Your task to perform on an android device: turn vacation reply on in the gmail app Image 0: 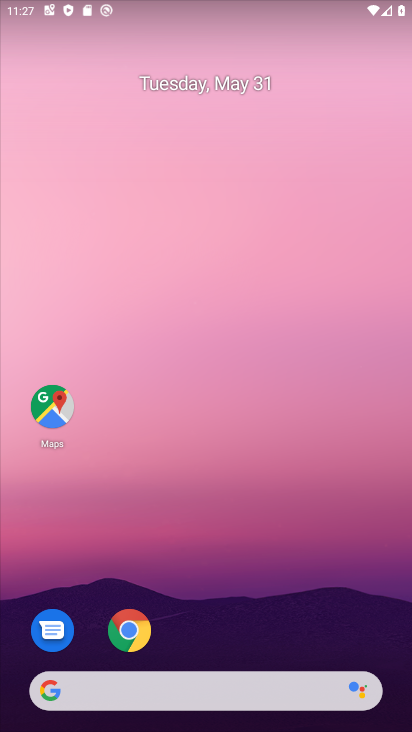
Step 0: drag from (123, 724) to (163, 198)
Your task to perform on an android device: turn vacation reply on in the gmail app Image 1: 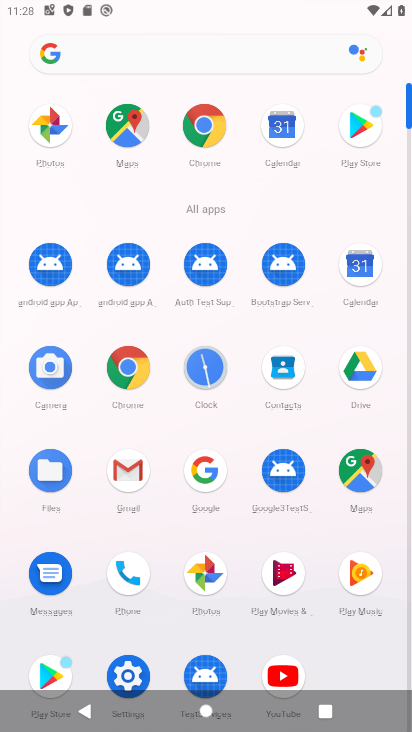
Step 1: click (123, 479)
Your task to perform on an android device: turn vacation reply on in the gmail app Image 2: 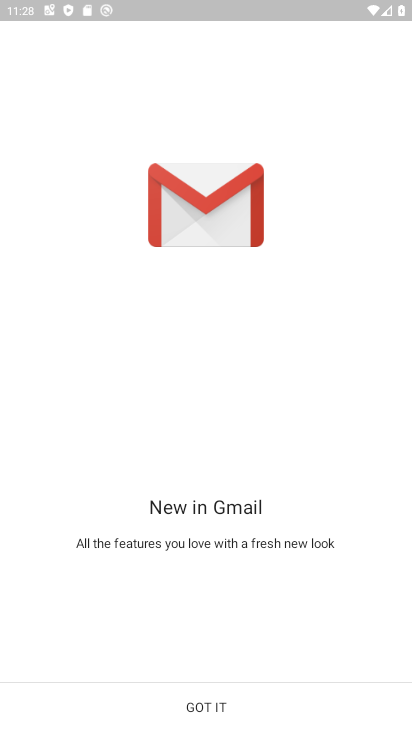
Step 2: click (201, 712)
Your task to perform on an android device: turn vacation reply on in the gmail app Image 3: 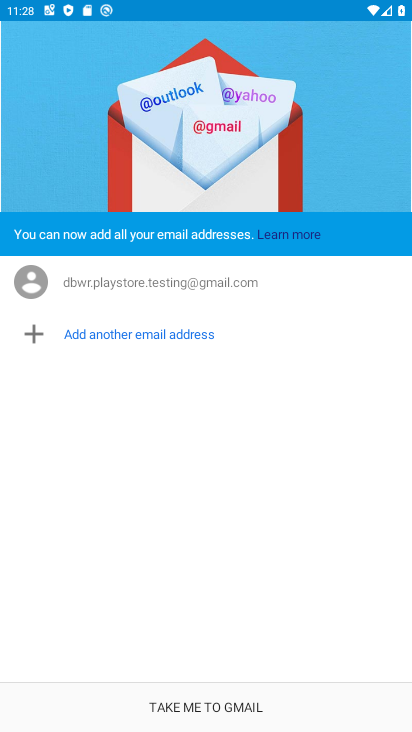
Step 3: click (201, 712)
Your task to perform on an android device: turn vacation reply on in the gmail app Image 4: 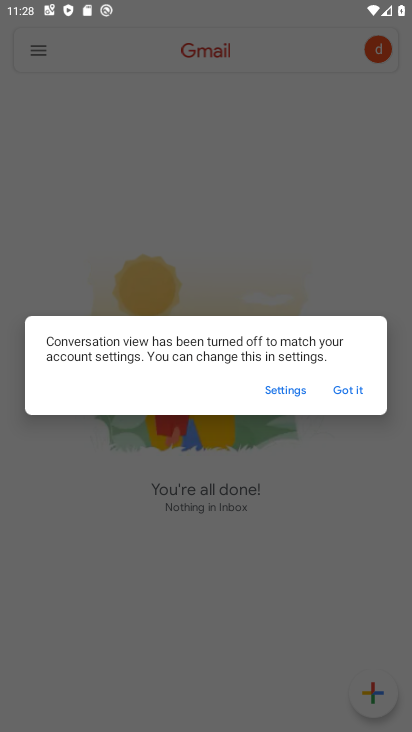
Step 4: click (346, 391)
Your task to perform on an android device: turn vacation reply on in the gmail app Image 5: 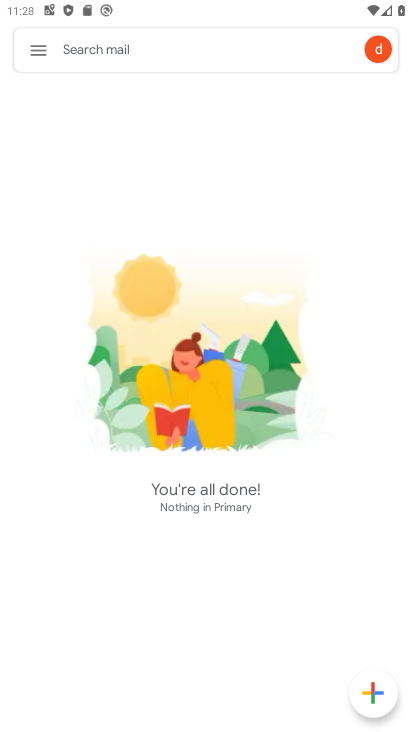
Step 5: click (50, 48)
Your task to perform on an android device: turn vacation reply on in the gmail app Image 6: 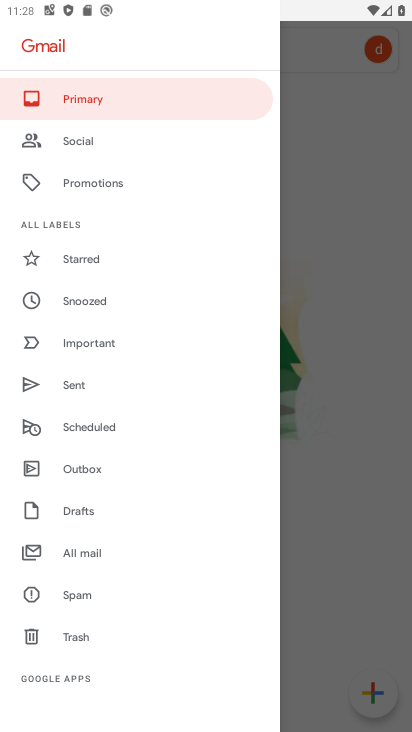
Step 6: drag from (86, 694) to (72, 472)
Your task to perform on an android device: turn vacation reply on in the gmail app Image 7: 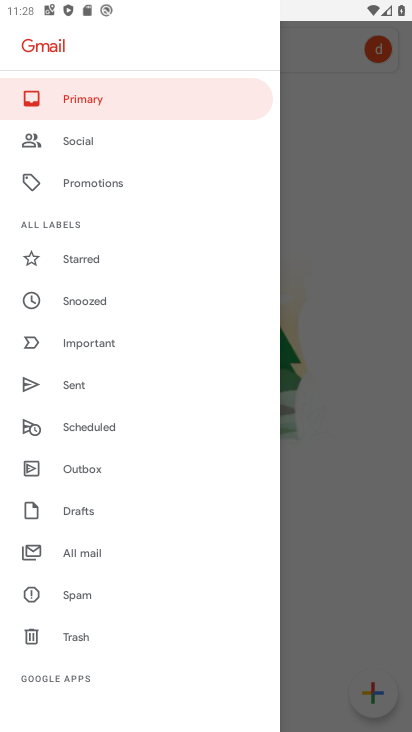
Step 7: drag from (118, 683) to (129, 384)
Your task to perform on an android device: turn vacation reply on in the gmail app Image 8: 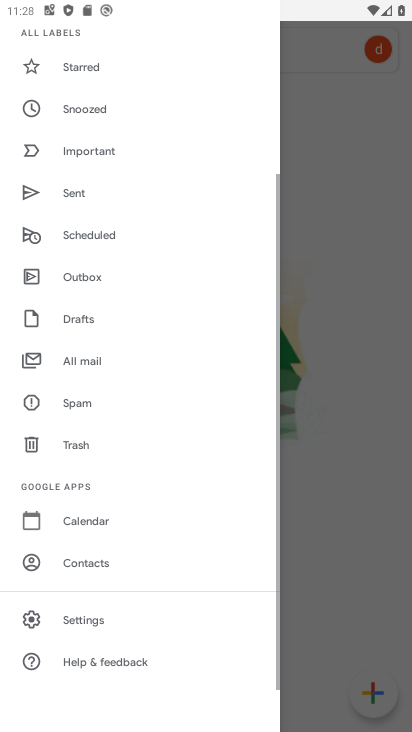
Step 8: click (83, 623)
Your task to perform on an android device: turn vacation reply on in the gmail app Image 9: 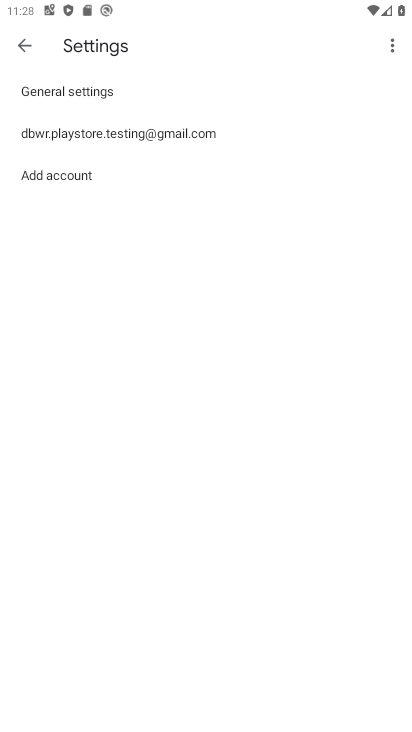
Step 9: click (132, 131)
Your task to perform on an android device: turn vacation reply on in the gmail app Image 10: 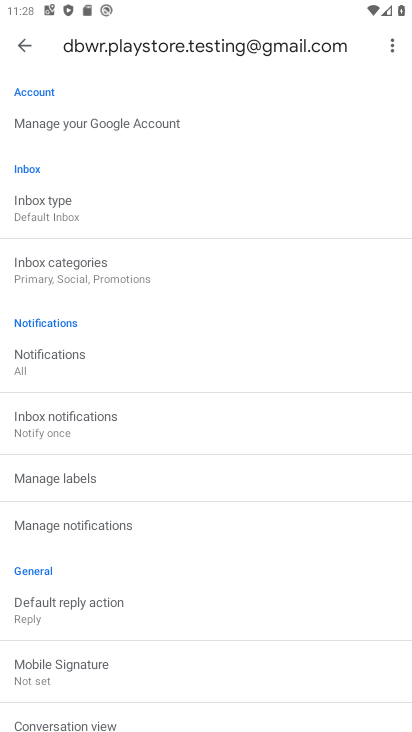
Step 10: drag from (191, 699) to (185, 321)
Your task to perform on an android device: turn vacation reply on in the gmail app Image 11: 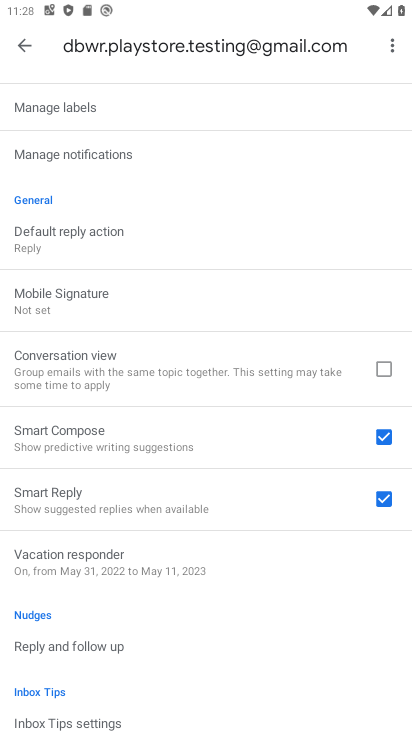
Step 11: drag from (210, 656) to (192, 623)
Your task to perform on an android device: turn vacation reply on in the gmail app Image 12: 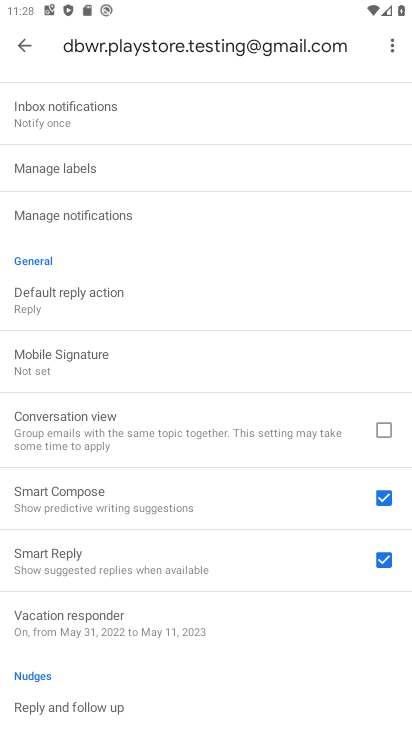
Step 12: click (181, 634)
Your task to perform on an android device: turn vacation reply on in the gmail app Image 13: 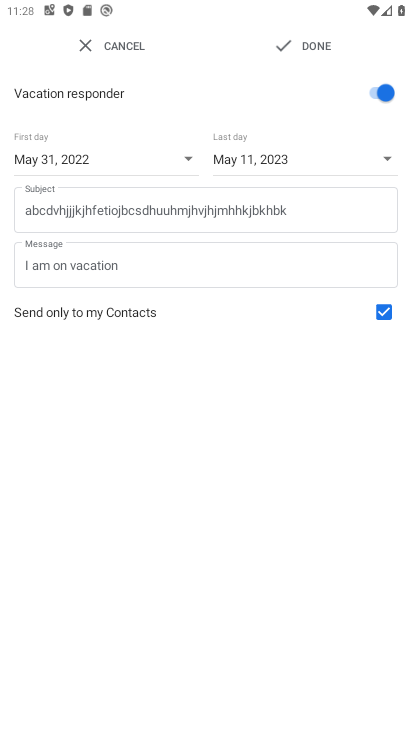
Step 13: click (306, 47)
Your task to perform on an android device: turn vacation reply on in the gmail app Image 14: 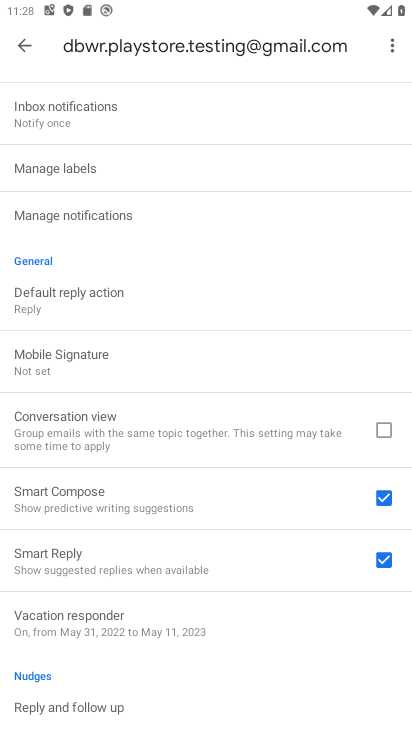
Step 14: task complete